Your task to perform on an android device: turn vacation reply on in the gmail app Image 0: 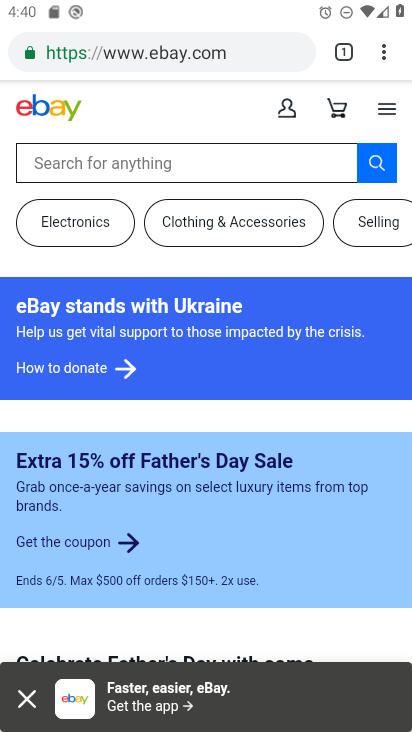
Step 0: press home button
Your task to perform on an android device: turn vacation reply on in the gmail app Image 1: 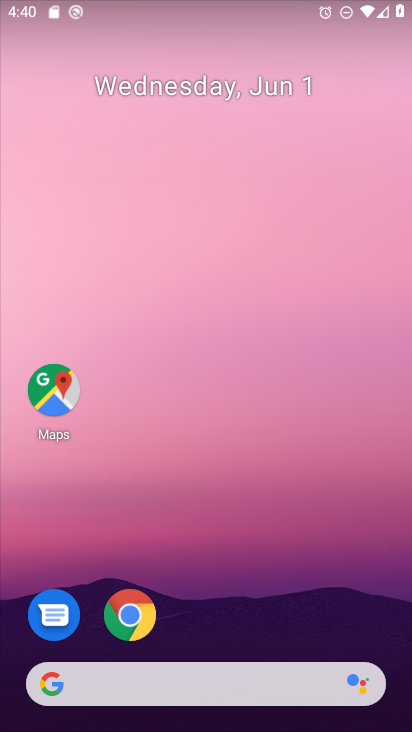
Step 1: drag from (251, 631) to (290, 0)
Your task to perform on an android device: turn vacation reply on in the gmail app Image 2: 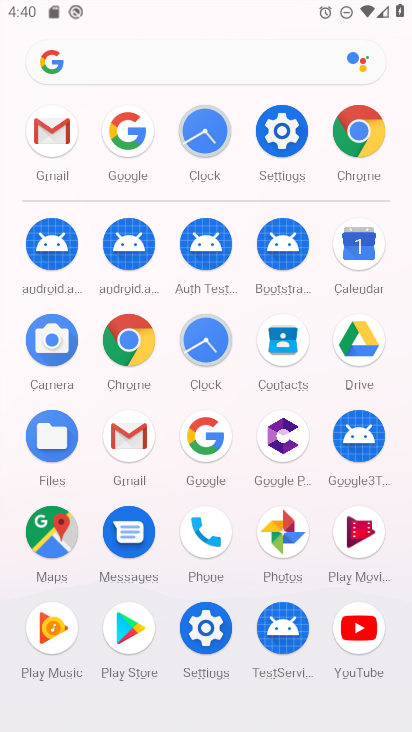
Step 2: click (128, 427)
Your task to perform on an android device: turn vacation reply on in the gmail app Image 3: 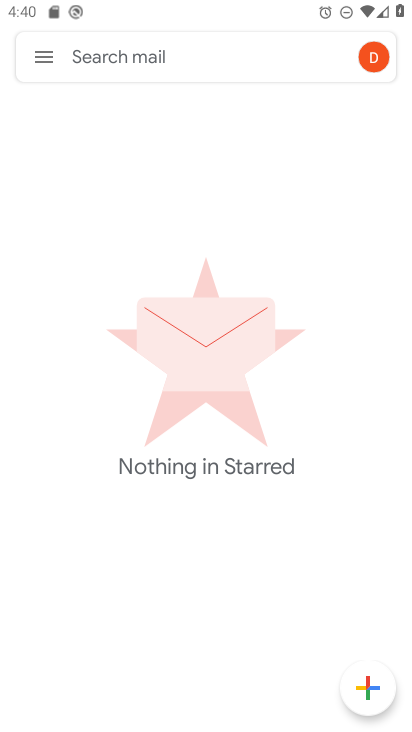
Step 3: click (42, 51)
Your task to perform on an android device: turn vacation reply on in the gmail app Image 4: 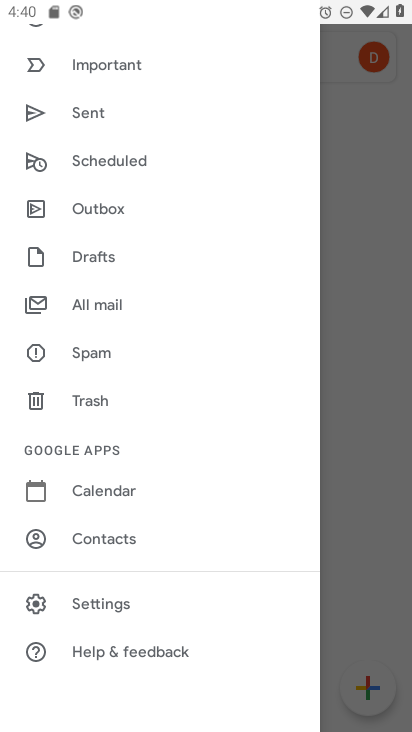
Step 4: click (138, 596)
Your task to perform on an android device: turn vacation reply on in the gmail app Image 5: 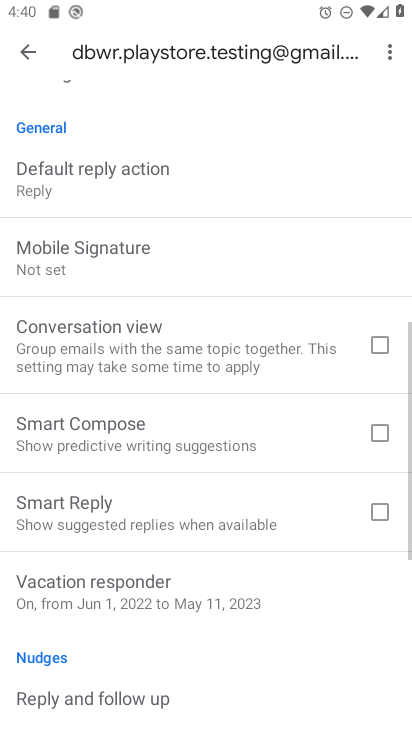
Step 5: click (187, 598)
Your task to perform on an android device: turn vacation reply on in the gmail app Image 6: 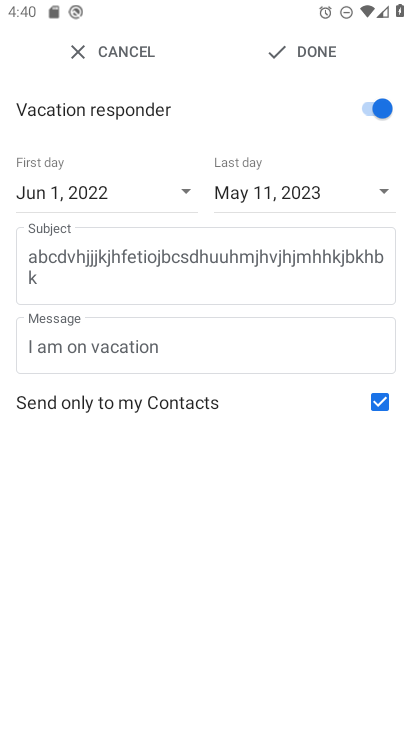
Step 6: task complete